Your task to perform on an android device: turn on improve location accuracy Image 0: 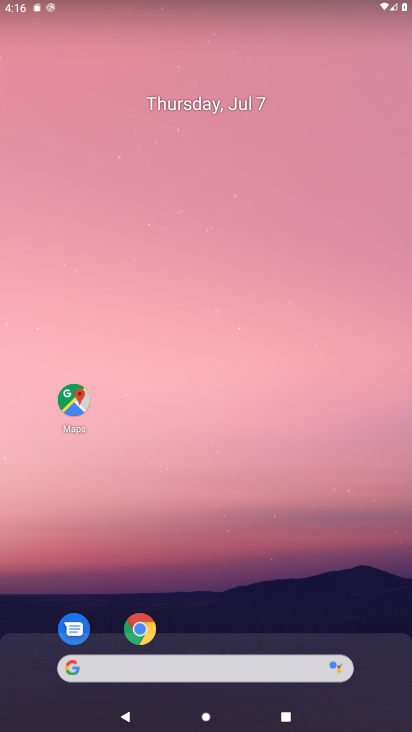
Step 0: drag from (139, 620) to (358, 8)
Your task to perform on an android device: turn on improve location accuracy Image 1: 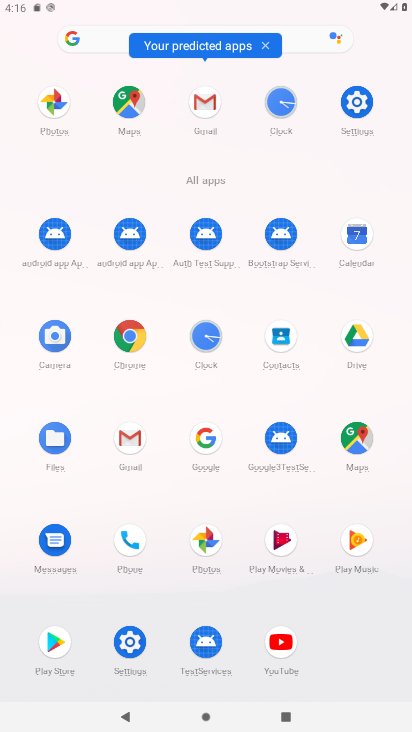
Step 1: click (136, 645)
Your task to perform on an android device: turn on improve location accuracy Image 2: 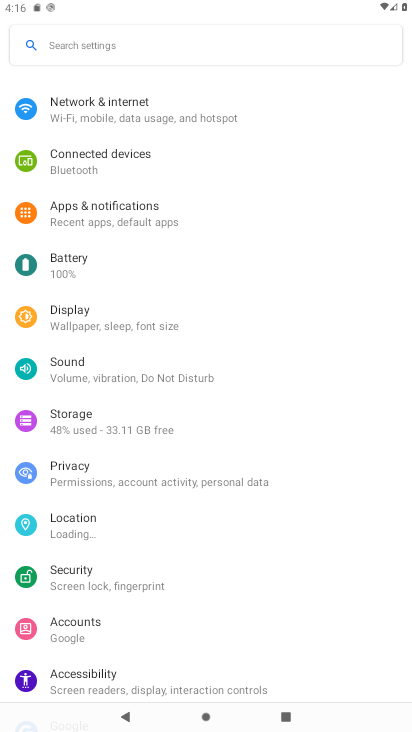
Step 2: drag from (128, 572) to (174, 403)
Your task to perform on an android device: turn on improve location accuracy Image 3: 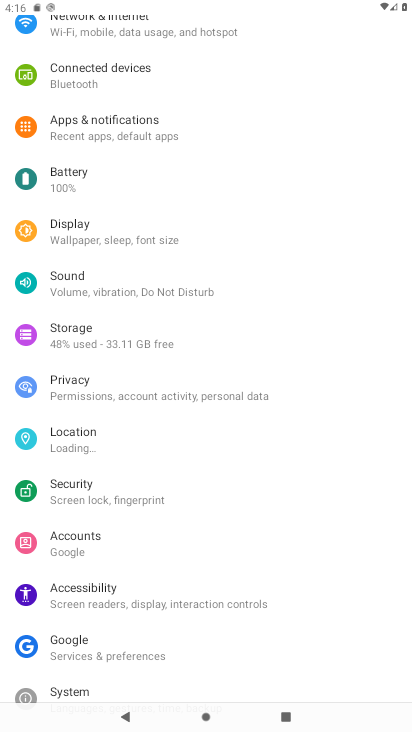
Step 3: click (99, 449)
Your task to perform on an android device: turn on improve location accuracy Image 4: 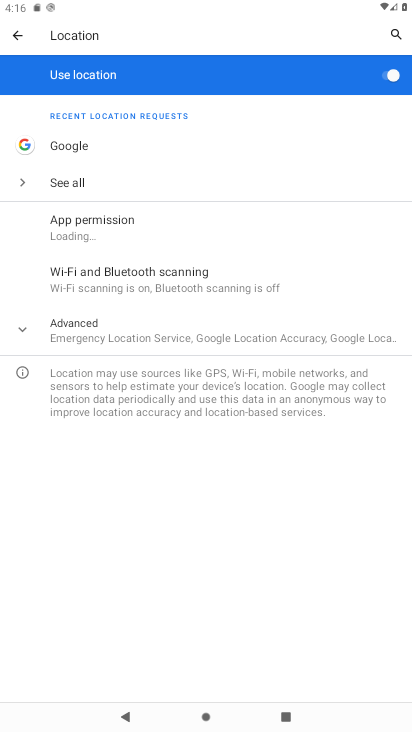
Step 4: click (113, 345)
Your task to perform on an android device: turn on improve location accuracy Image 5: 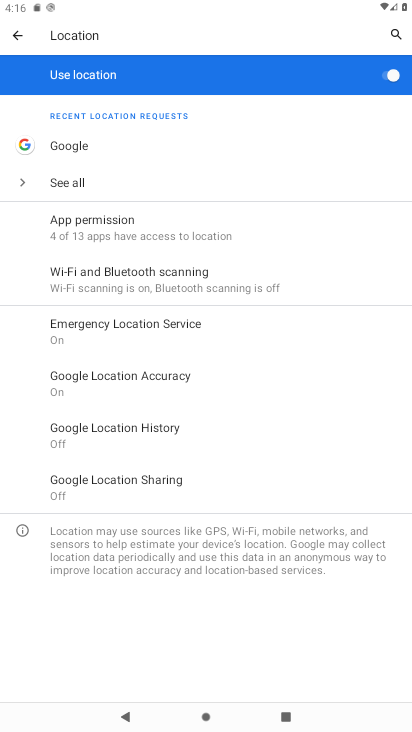
Step 5: click (205, 384)
Your task to perform on an android device: turn on improve location accuracy Image 6: 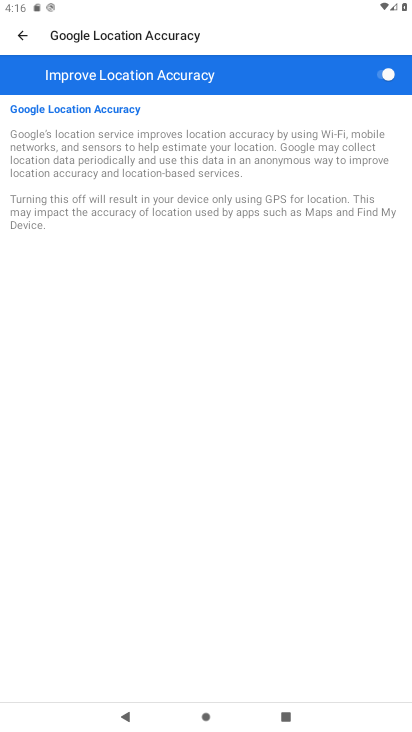
Step 6: task complete